Your task to perform on an android device: What's the weather? Image 0: 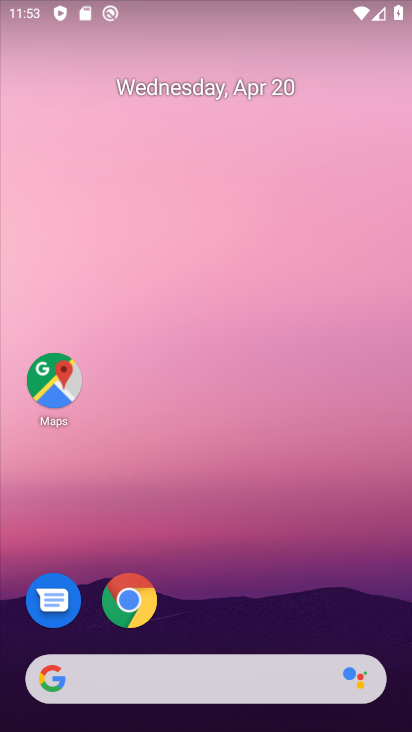
Step 0: click (226, 680)
Your task to perform on an android device: What's the weather? Image 1: 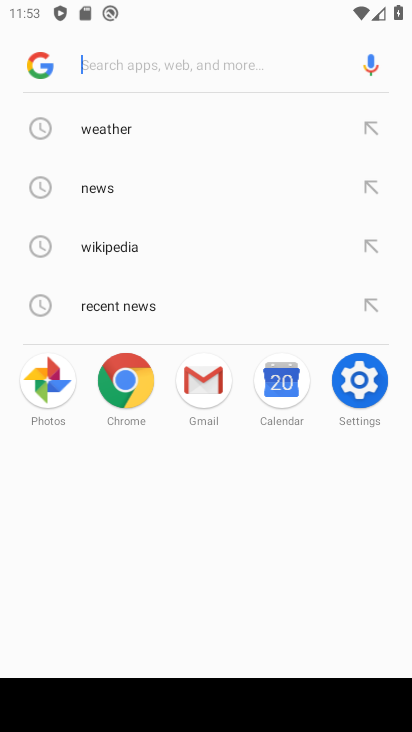
Step 1: click (125, 122)
Your task to perform on an android device: What's the weather? Image 2: 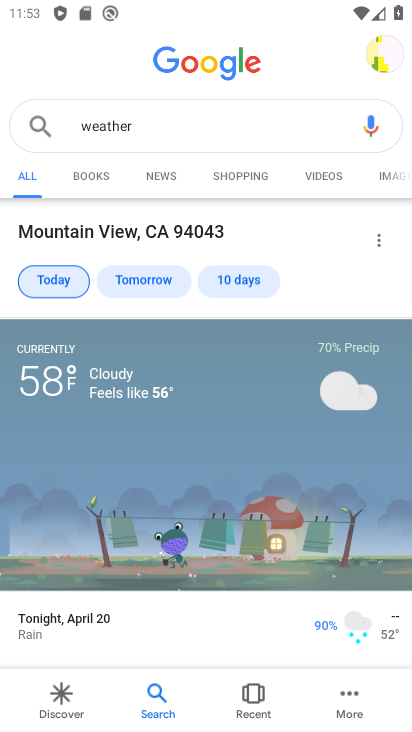
Step 2: task complete